Your task to perform on an android device: Open the phone app and click the voicemail tab. Image 0: 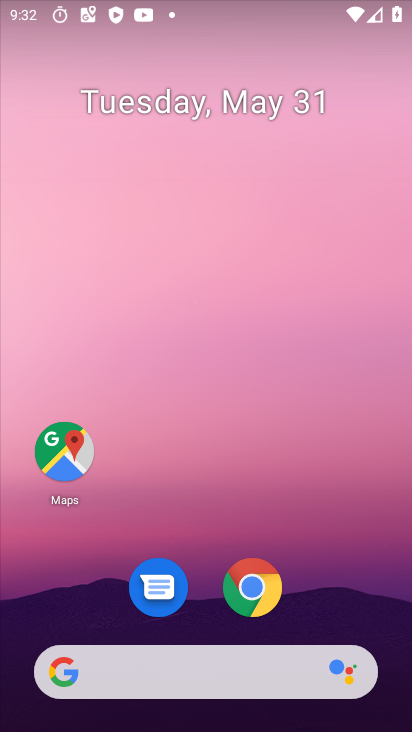
Step 0: drag from (309, 593) to (270, 31)
Your task to perform on an android device: Open the phone app and click the voicemail tab. Image 1: 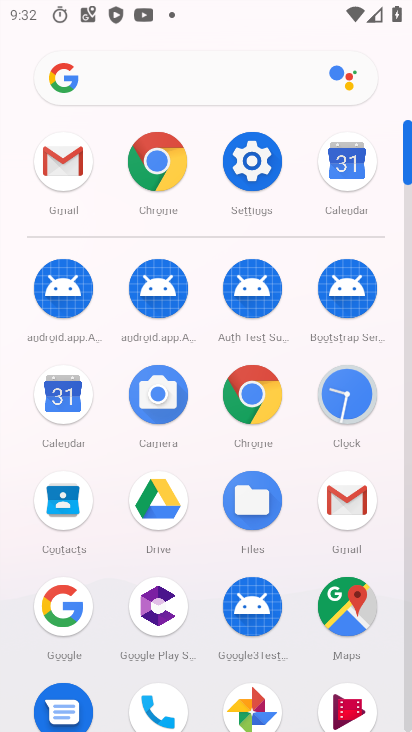
Step 1: click (150, 705)
Your task to perform on an android device: Open the phone app and click the voicemail tab. Image 2: 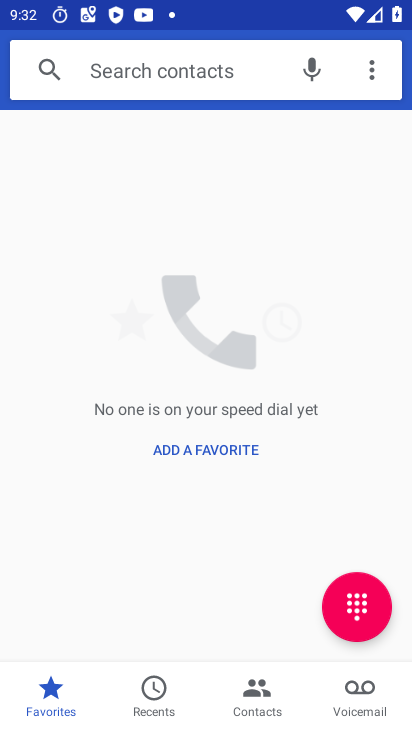
Step 2: click (355, 680)
Your task to perform on an android device: Open the phone app and click the voicemail tab. Image 3: 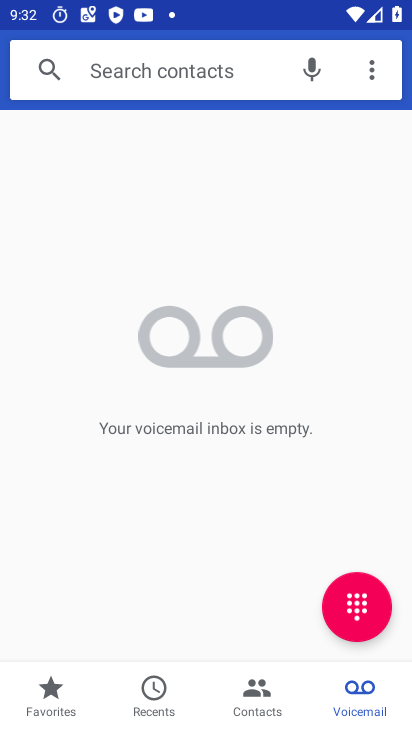
Step 3: task complete